Your task to perform on an android device: What is the news today? Image 0: 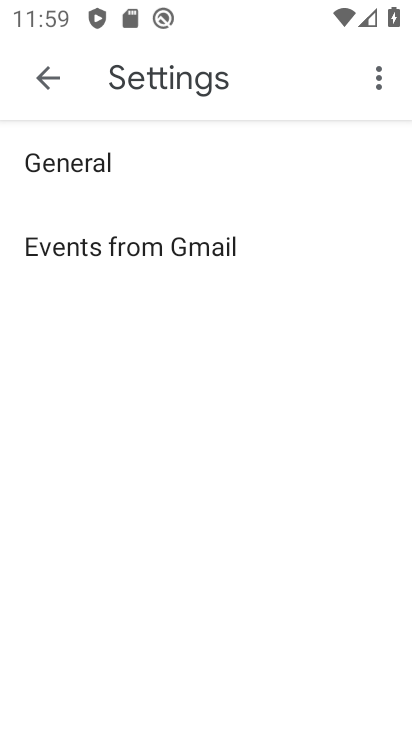
Step 0: press home button
Your task to perform on an android device: What is the news today? Image 1: 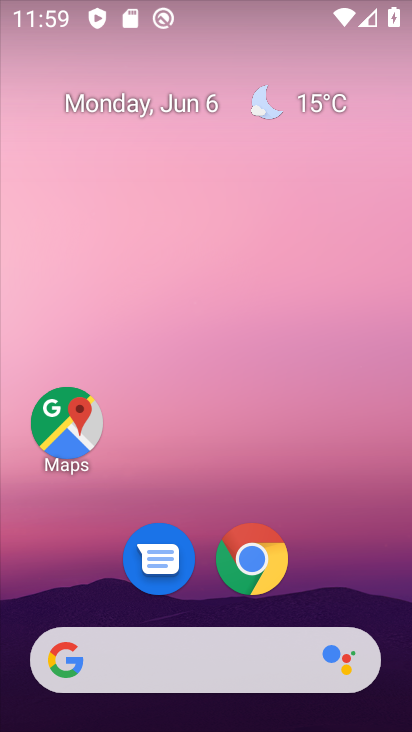
Step 1: click (261, 540)
Your task to perform on an android device: What is the news today? Image 2: 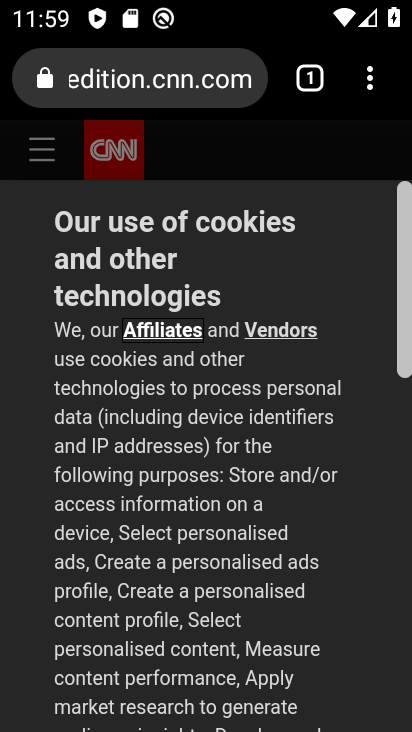
Step 2: click (240, 78)
Your task to perform on an android device: What is the news today? Image 3: 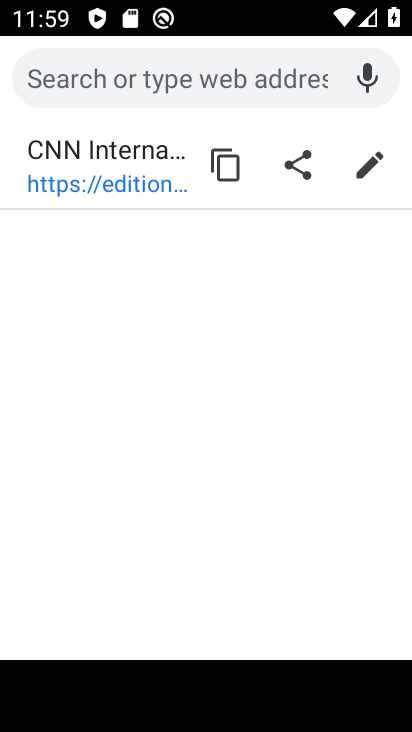
Step 3: type "news"
Your task to perform on an android device: What is the news today? Image 4: 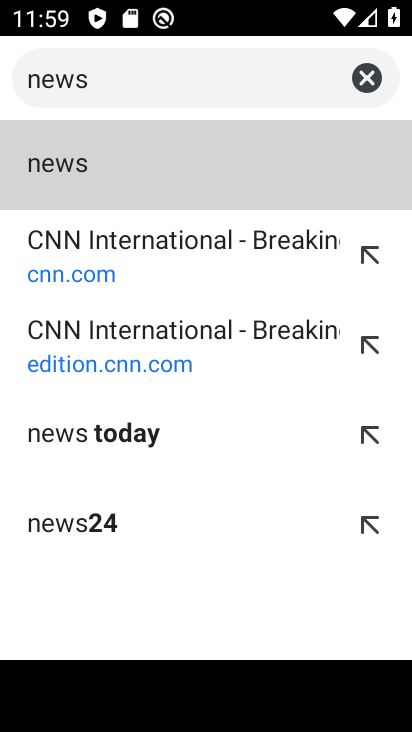
Step 4: click (233, 150)
Your task to perform on an android device: What is the news today? Image 5: 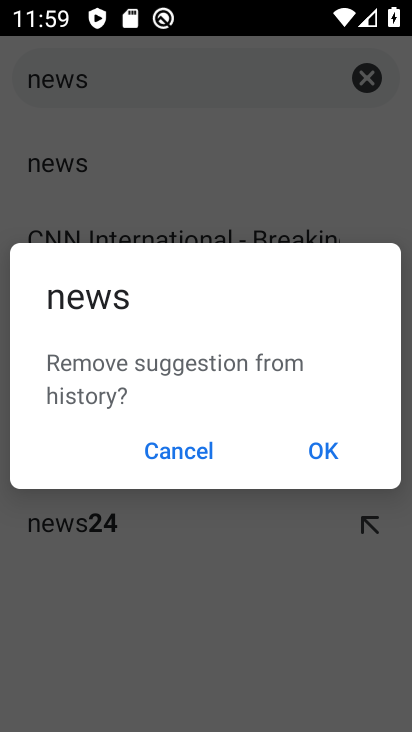
Step 5: click (317, 442)
Your task to perform on an android device: What is the news today? Image 6: 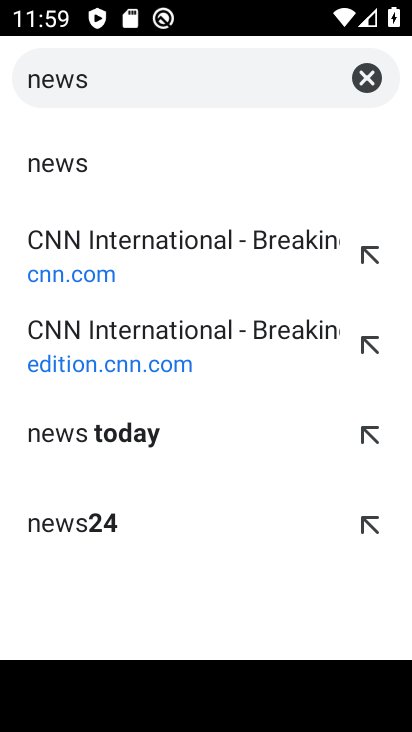
Step 6: click (156, 157)
Your task to perform on an android device: What is the news today? Image 7: 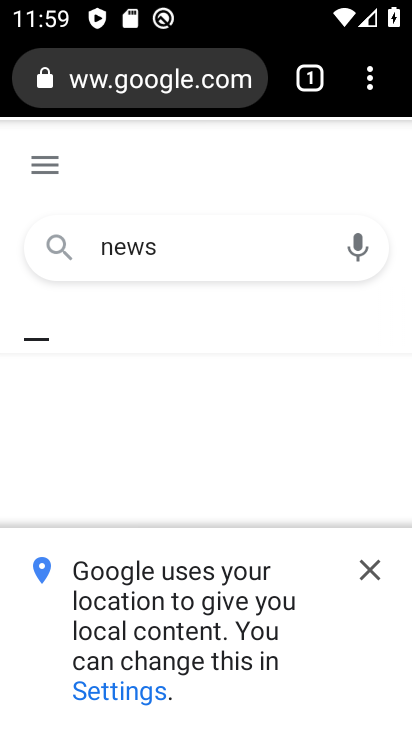
Step 7: click (367, 567)
Your task to perform on an android device: What is the news today? Image 8: 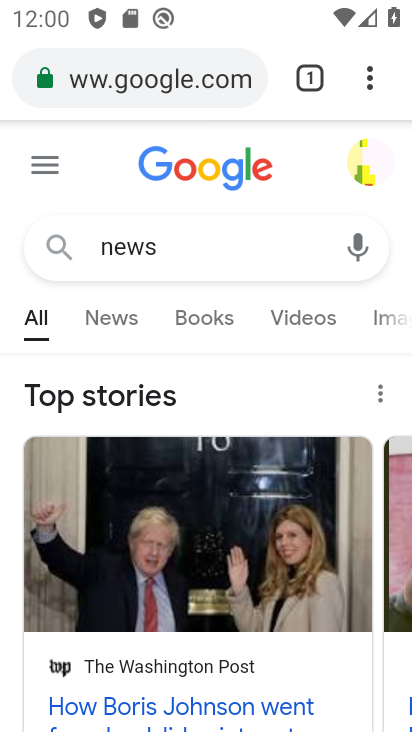
Step 8: task complete